Your task to perform on an android device: Open eBay Image 0: 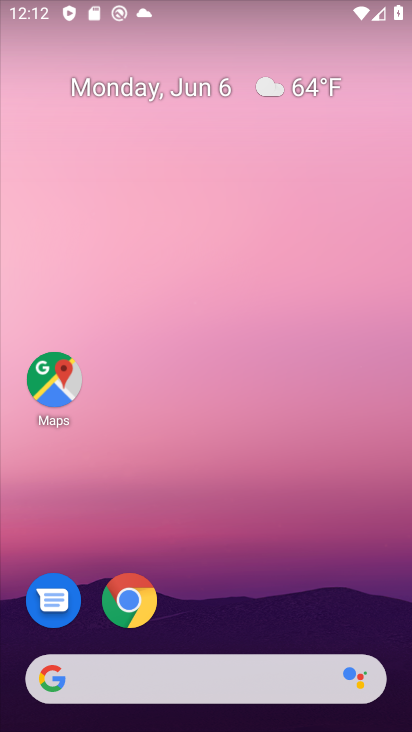
Step 0: click (137, 593)
Your task to perform on an android device: Open eBay Image 1: 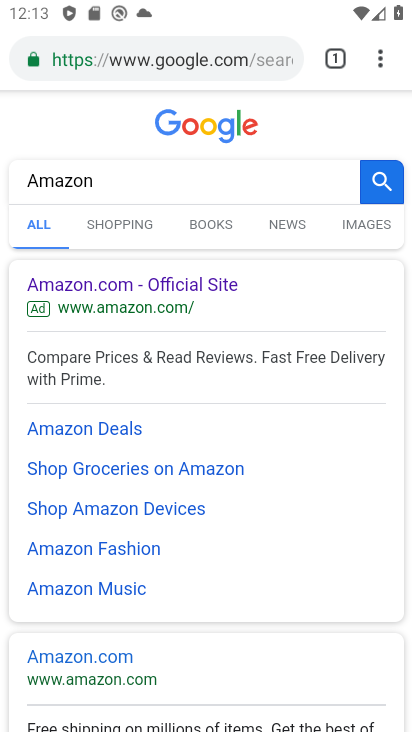
Step 1: click (289, 46)
Your task to perform on an android device: Open eBay Image 2: 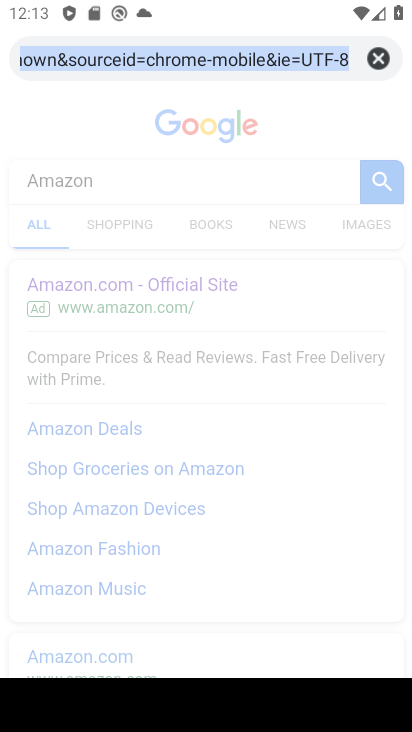
Step 2: click (371, 57)
Your task to perform on an android device: Open eBay Image 3: 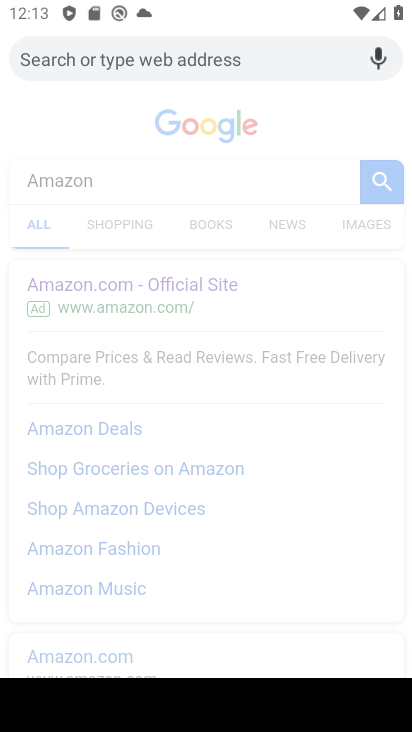
Step 3: type "eBay"
Your task to perform on an android device: Open eBay Image 4: 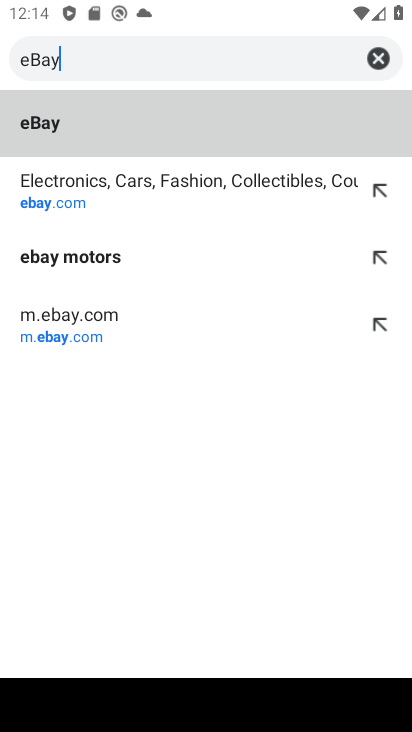
Step 4: click (50, 104)
Your task to perform on an android device: Open eBay Image 5: 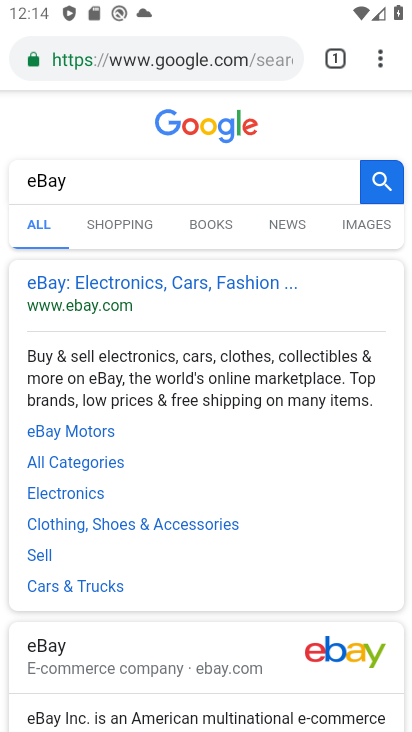
Step 5: task complete